Your task to perform on an android device: add a contact in the contacts app Image 0: 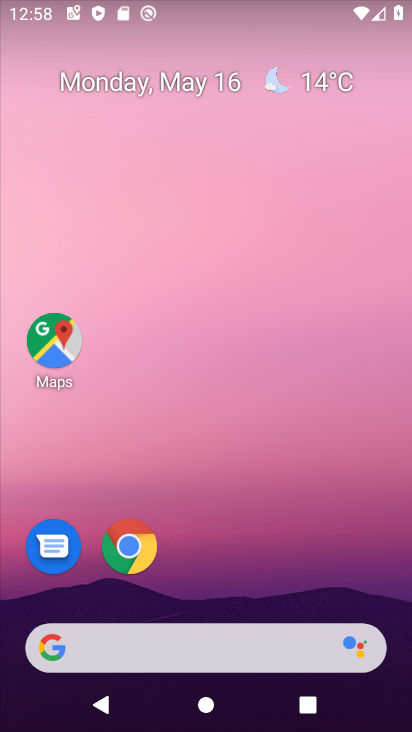
Step 0: drag from (363, 677) to (285, 139)
Your task to perform on an android device: add a contact in the contacts app Image 1: 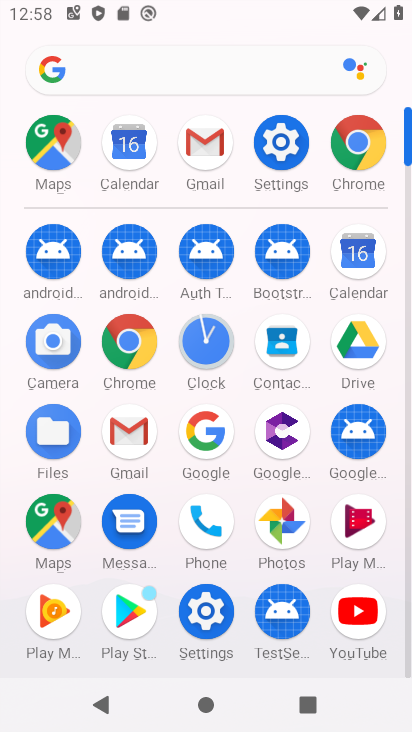
Step 1: click (210, 529)
Your task to perform on an android device: add a contact in the contacts app Image 2: 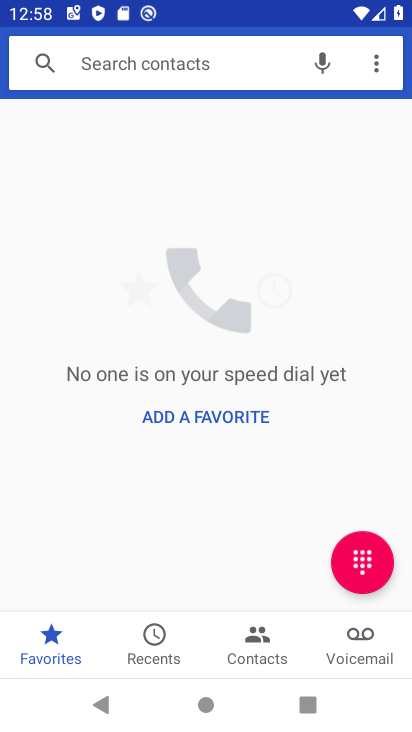
Step 2: click (247, 643)
Your task to perform on an android device: add a contact in the contacts app Image 3: 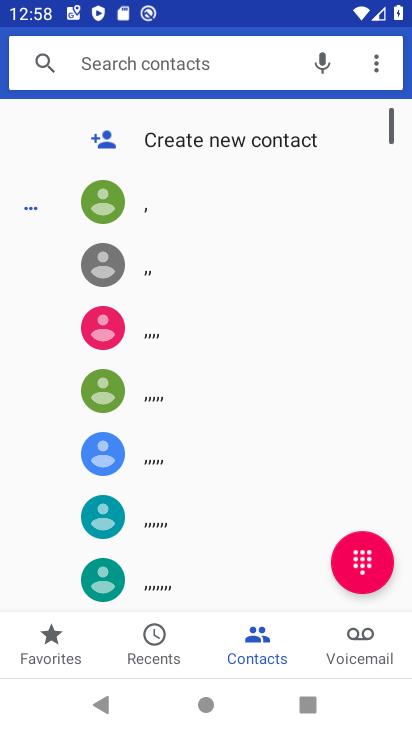
Step 3: click (232, 132)
Your task to perform on an android device: add a contact in the contacts app Image 4: 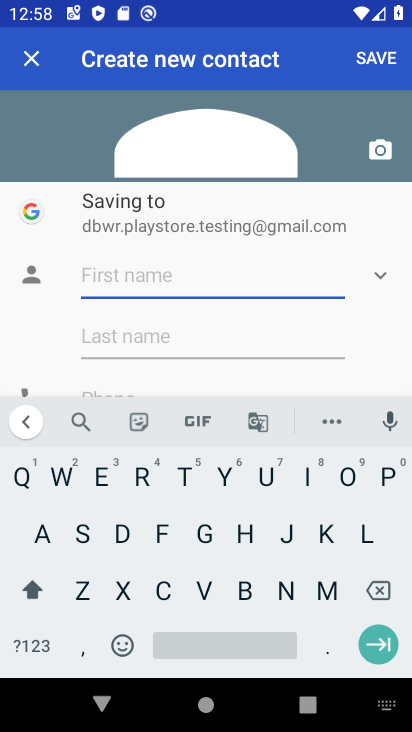
Step 4: click (135, 468)
Your task to perform on an android device: add a contact in the contacts app Image 5: 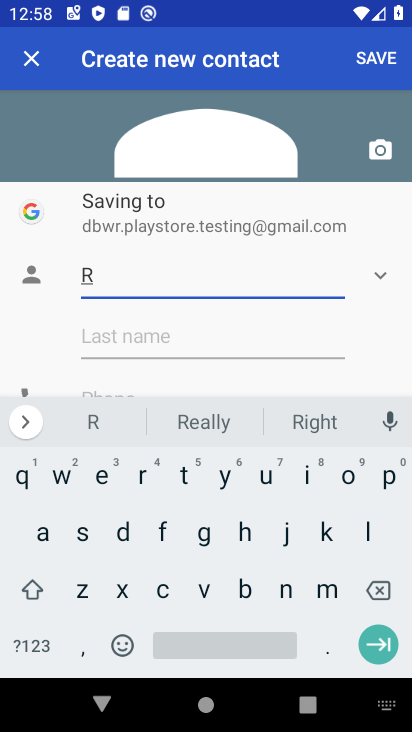
Step 5: click (92, 474)
Your task to perform on an android device: add a contact in the contacts app Image 6: 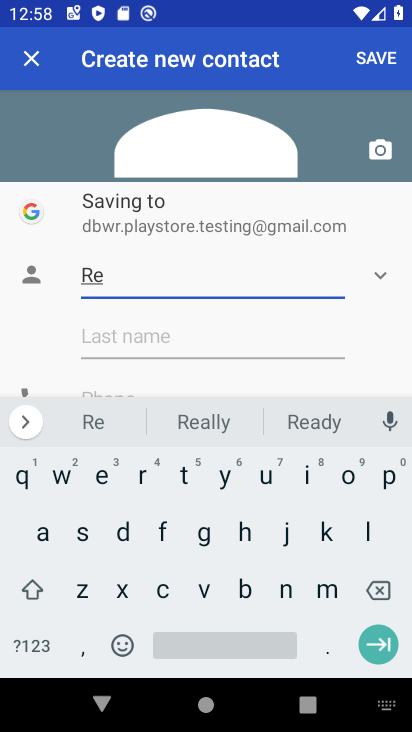
Step 6: click (71, 471)
Your task to perform on an android device: add a contact in the contacts app Image 7: 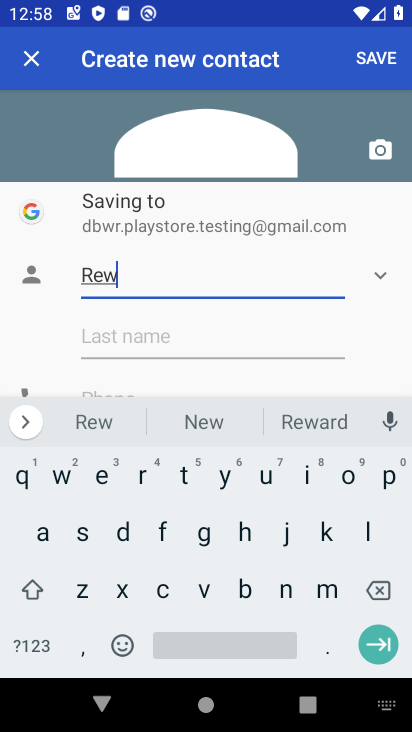
Step 7: click (44, 526)
Your task to perform on an android device: add a contact in the contacts app Image 8: 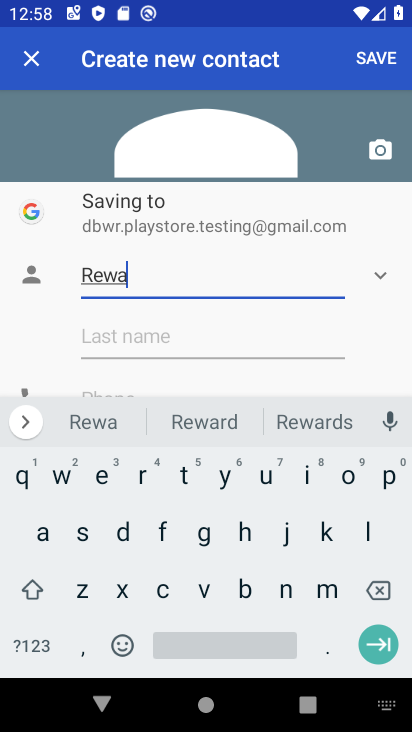
Step 8: click (147, 378)
Your task to perform on an android device: add a contact in the contacts app Image 9: 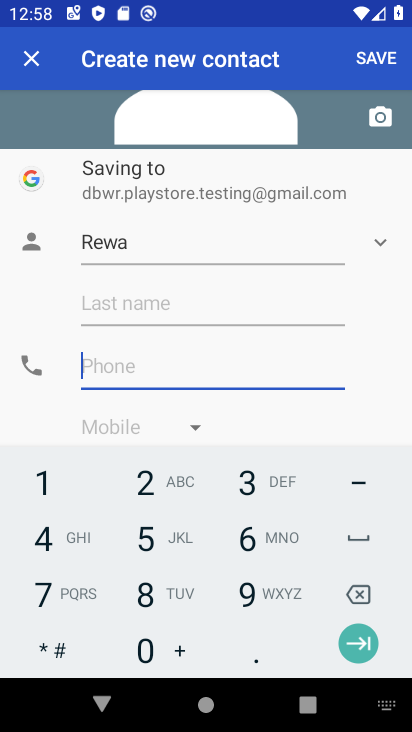
Step 9: click (172, 596)
Your task to perform on an android device: add a contact in the contacts app Image 10: 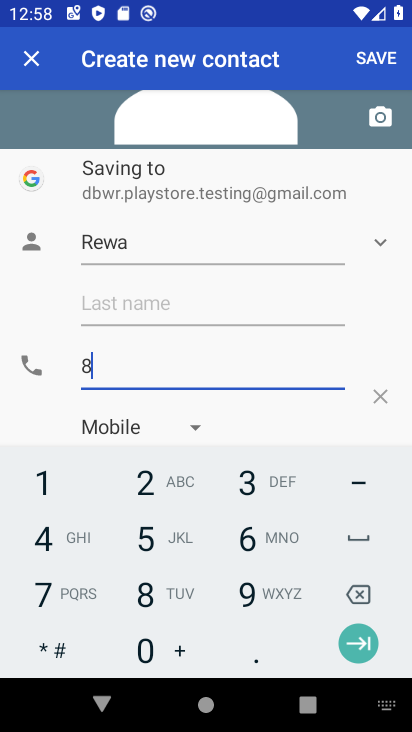
Step 10: click (165, 535)
Your task to perform on an android device: add a contact in the contacts app Image 11: 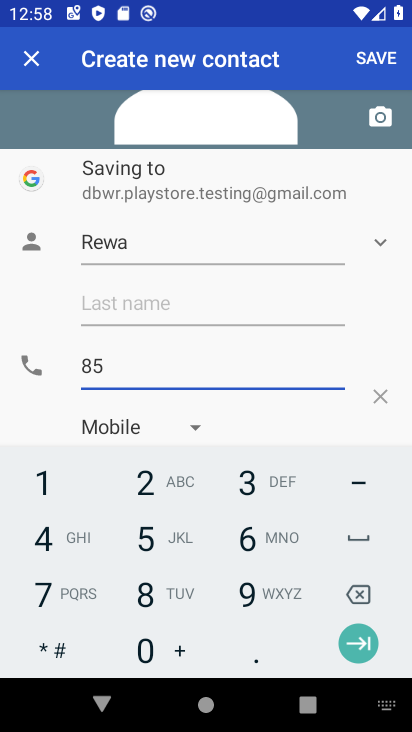
Step 11: click (247, 595)
Your task to perform on an android device: add a contact in the contacts app Image 12: 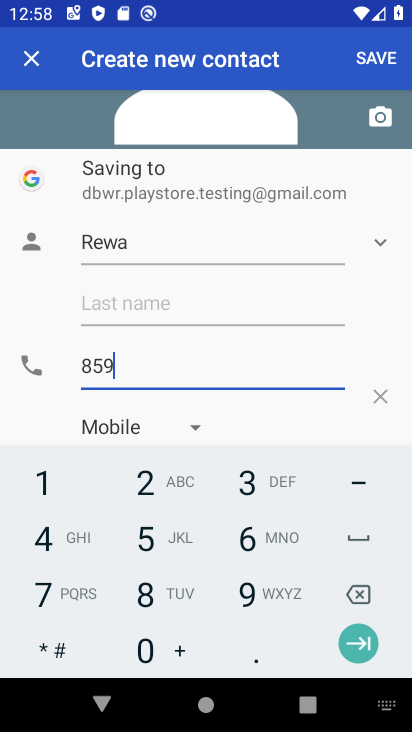
Step 12: click (273, 542)
Your task to perform on an android device: add a contact in the contacts app Image 13: 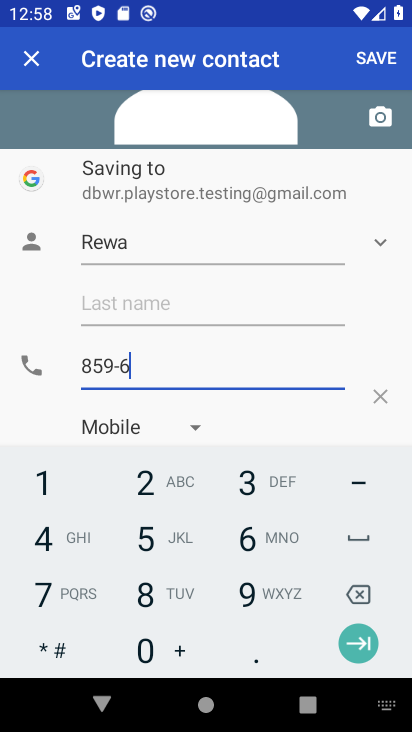
Step 13: click (239, 541)
Your task to perform on an android device: add a contact in the contacts app Image 14: 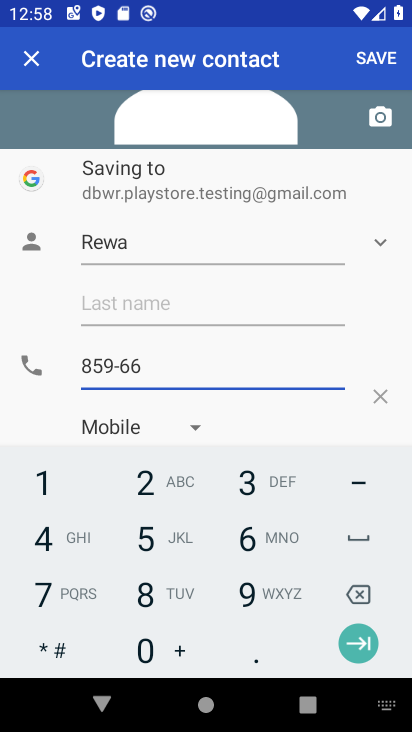
Step 14: click (48, 526)
Your task to perform on an android device: add a contact in the contacts app Image 15: 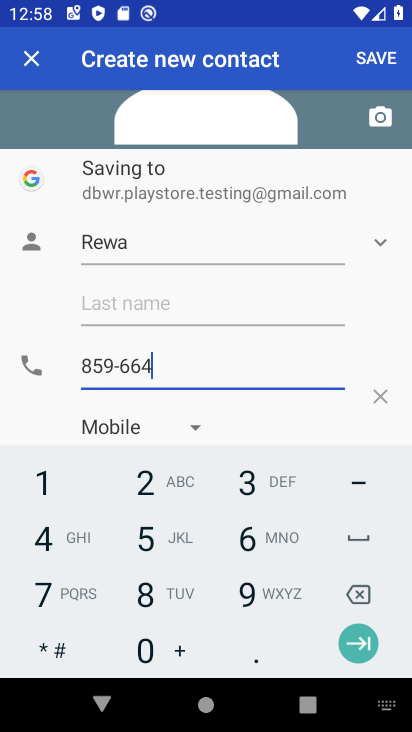
Step 15: click (143, 482)
Your task to perform on an android device: add a contact in the contacts app Image 16: 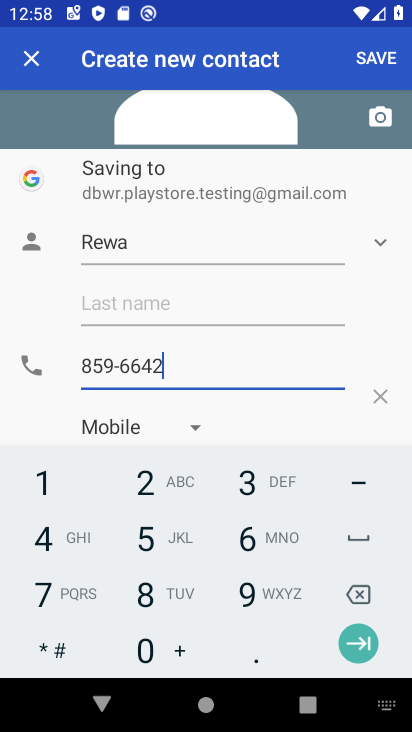
Step 16: click (88, 523)
Your task to perform on an android device: add a contact in the contacts app Image 17: 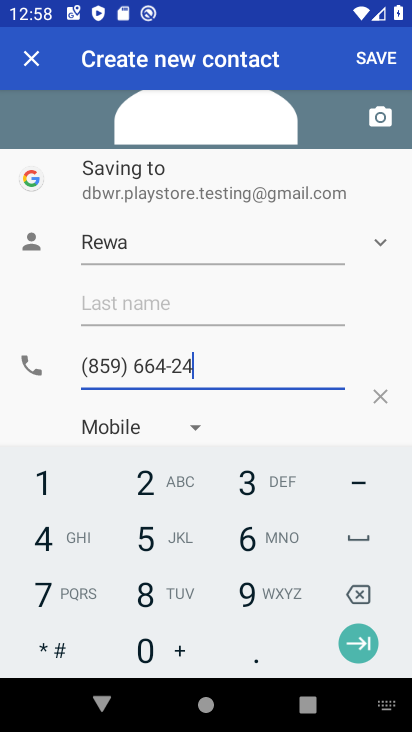
Step 17: click (172, 533)
Your task to perform on an android device: add a contact in the contacts app Image 18: 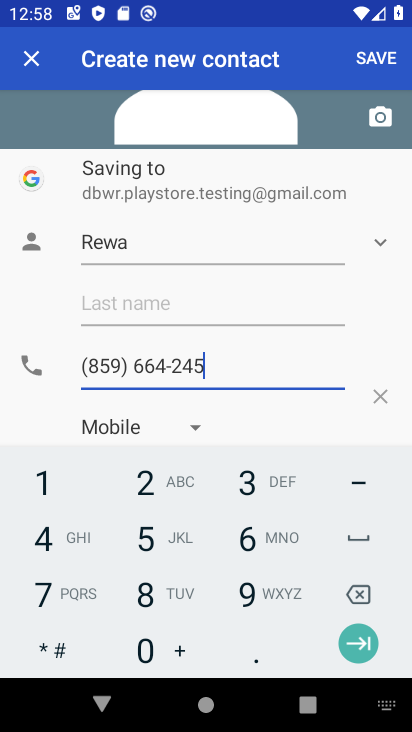
Step 18: click (77, 572)
Your task to perform on an android device: add a contact in the contacts app Image 19: 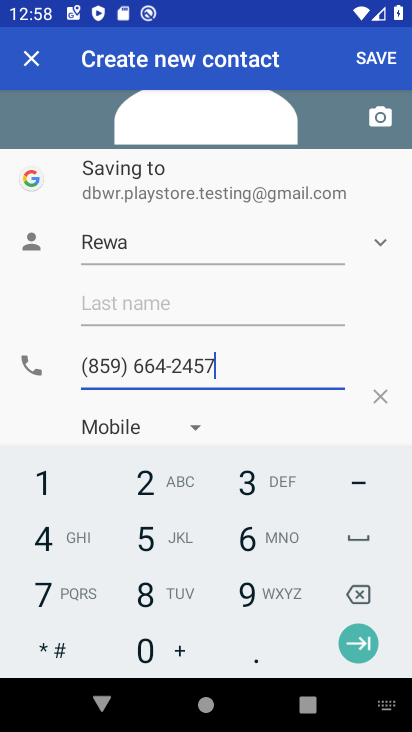
Step 19: click (154, 524)
Your task to perform on an android device: add a contact in the contacts app Image 20: 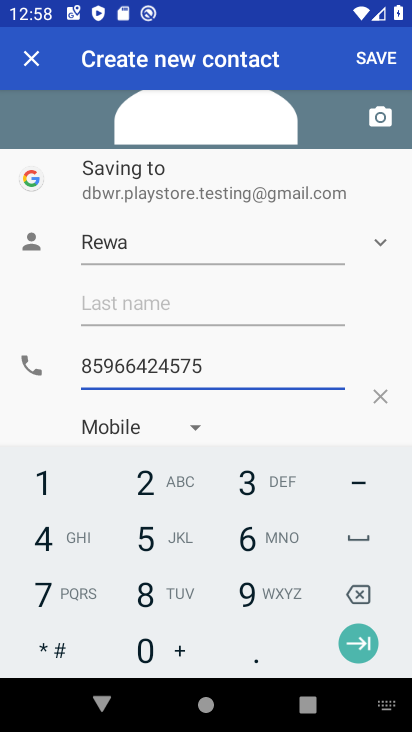
Step 20: click (376, 595)
Your task to perform on an android device: add a contact in the contacts app Image 21: 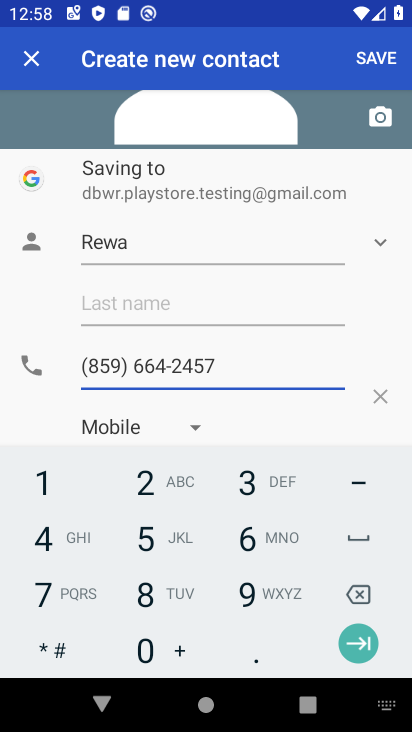
Step 21: click (384, 58)
Your task to perform on an android device: add a contact in the contacts app Image 22: 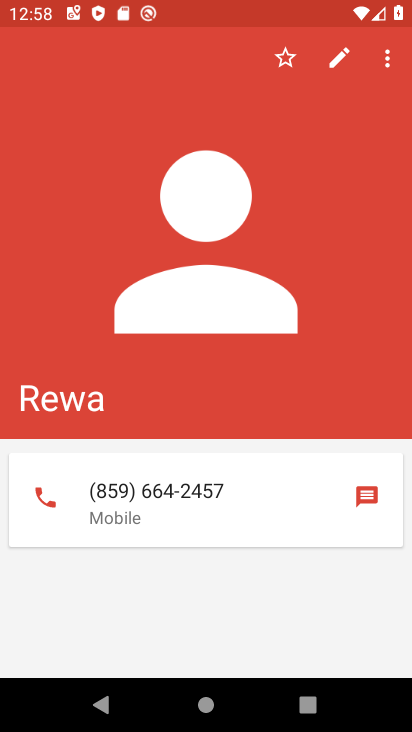
Step 22: task complete